Your task to perform on an android device: Open Yahoo.com Image 0: 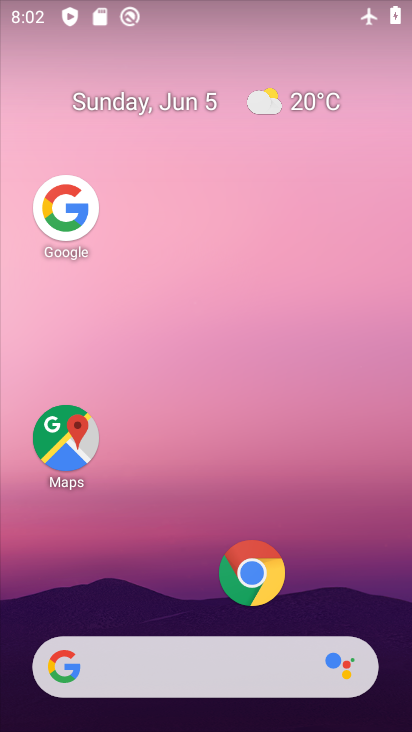
Step 0: drag from (204, 615) to (179, 52)
Your task to perform on an android device: Open Yahoo.com Image 1: 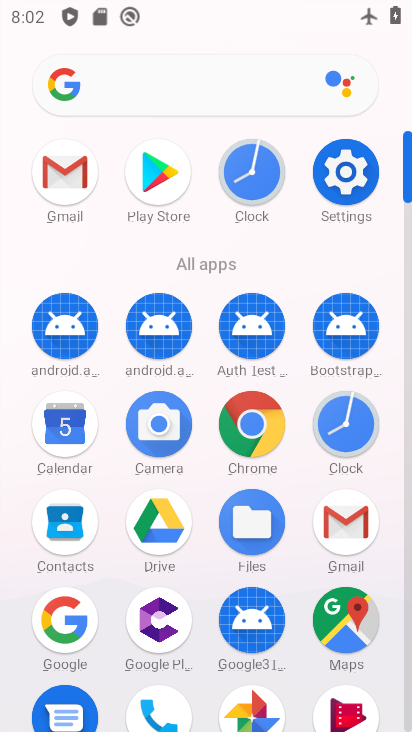
Step 1: click (251, 450)
Your task to perform on an android device: Open Yahoo.com Image 2: 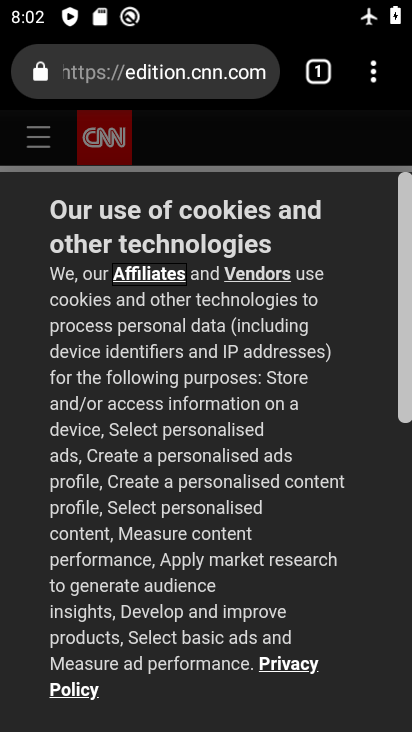
Step 2: click (295, 61)
Your task to perform on an android device: Open Yahoo.com Image 3: 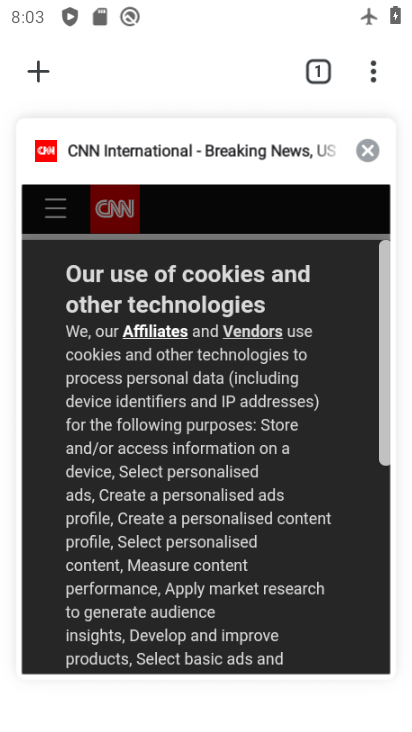
Step 3: click (37, 72)
Your task to perform on an android device: Open Yahoo.com Image 4: 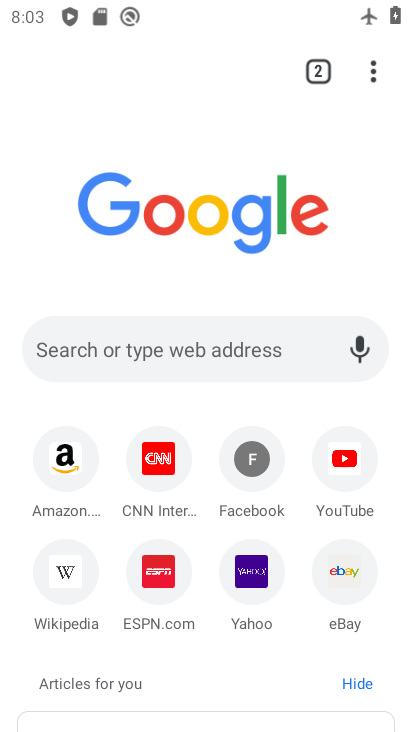
Step 4: click (266, 588)
Your task to perform on an android device: Open Yahoo.com Image 5: 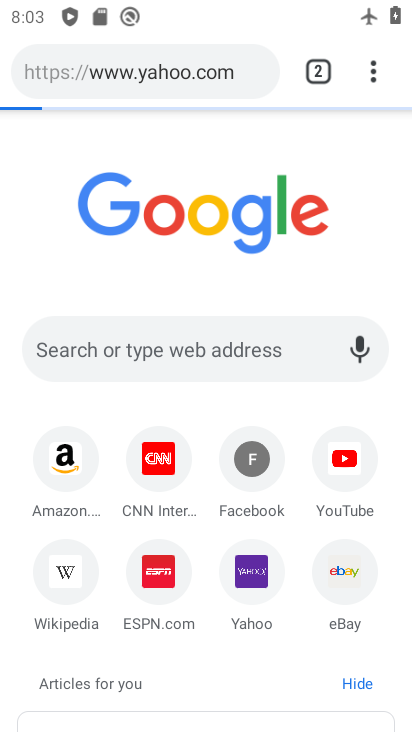
Step 5: click (266, 588)
Your task to perform on an android device: Open Yahoo.com Image 6: 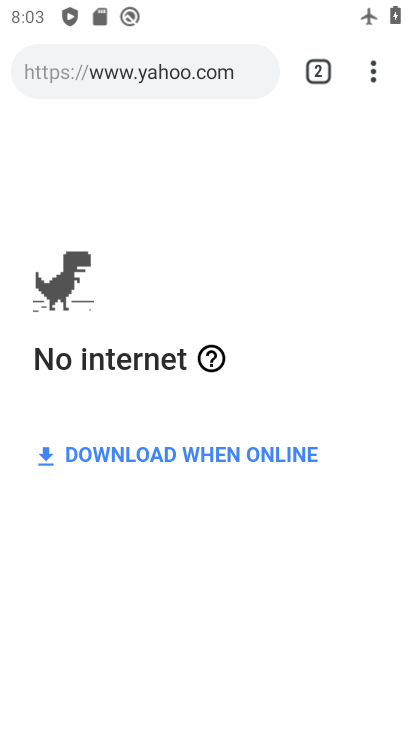
Step 6: task complete